Your task to perform on an android device: turn on priority inbox in the gmail app Image 0: 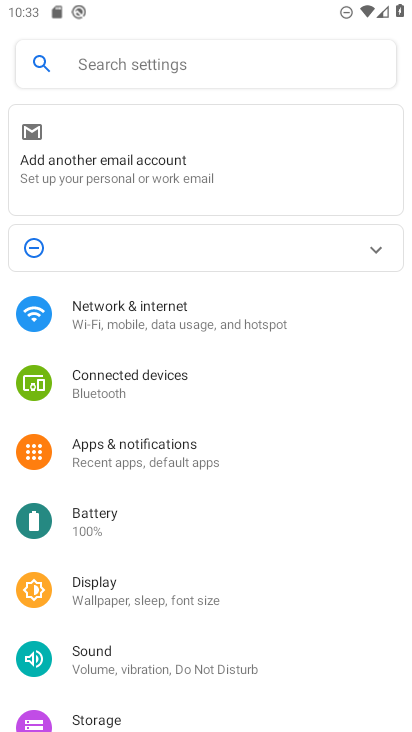
Step 0: press home button
Your task to perform on an android device: turn on priority inbox in the gmail app Image 1: 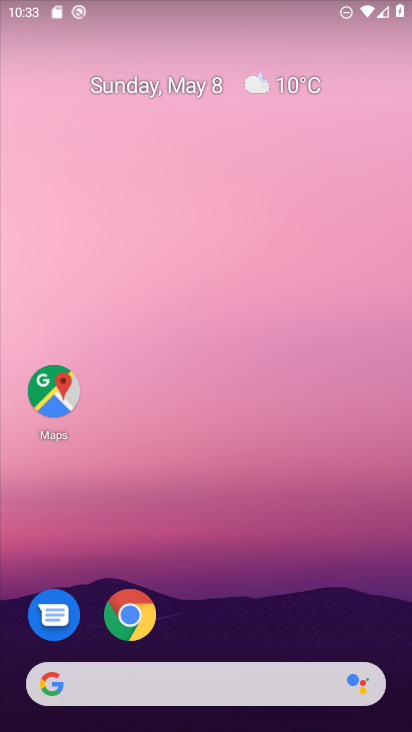
Step 1: drag from (313, 643) to (345, 158)
Your task to perform on an android device: turn on priority inbox in the gmail app Image 2: 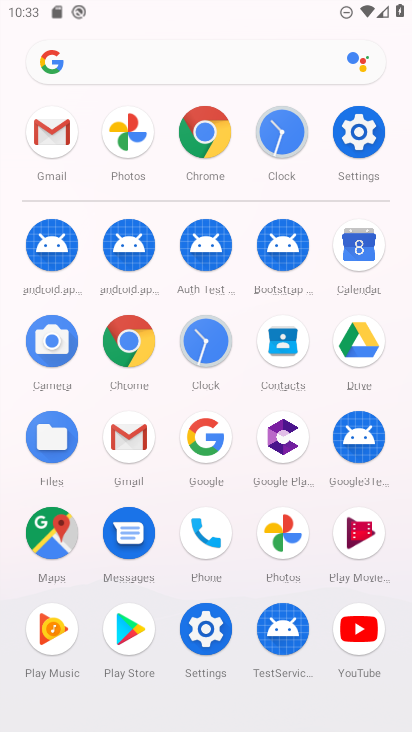
Step 2: click (54, 145)
Your task to perform on an android device: turn on priority inbox in the gmail app Image 3: 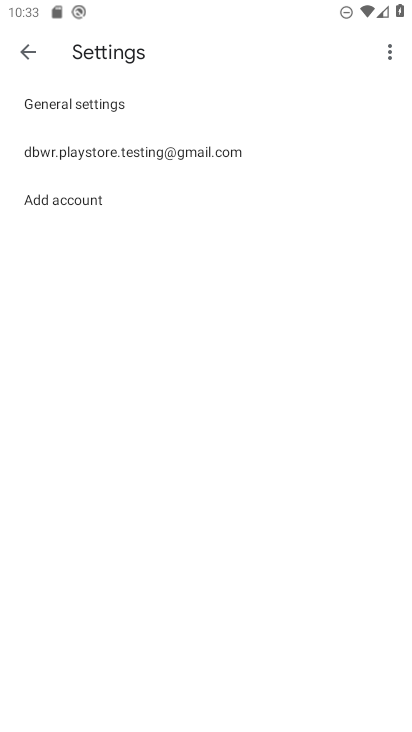
Step 3: click (81, 163)
Your task to perform on an android device: turn on priority inbox in the gmail app Image 4: 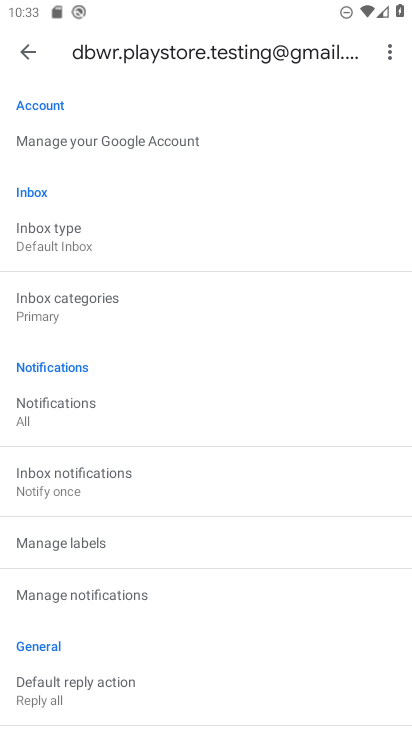
Step 4: click (67, 241)
Your task to perform on an android device: turn on priority inbox in the gmail app Image 5: 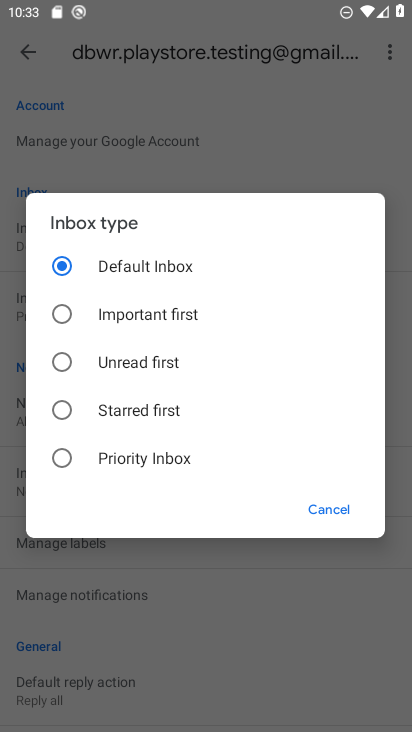
Step 5: task complete